Your task to perform on an android device: Show me popular games on the Play Store Image 0: 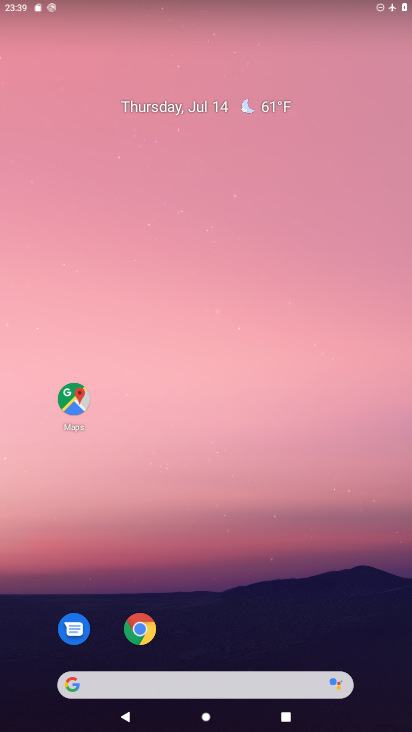
Step 0: drag from (271, 641) to (307, 108)
Your task to perform on an android device: Show me popular games on the Play Store Image 1: 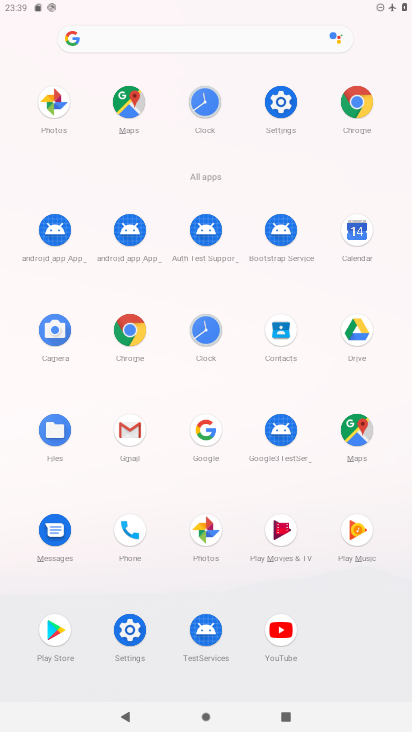
Step 1: click (49, 624)
Your task to perform on an android device: Show me popular games on the Play Store Image 2: 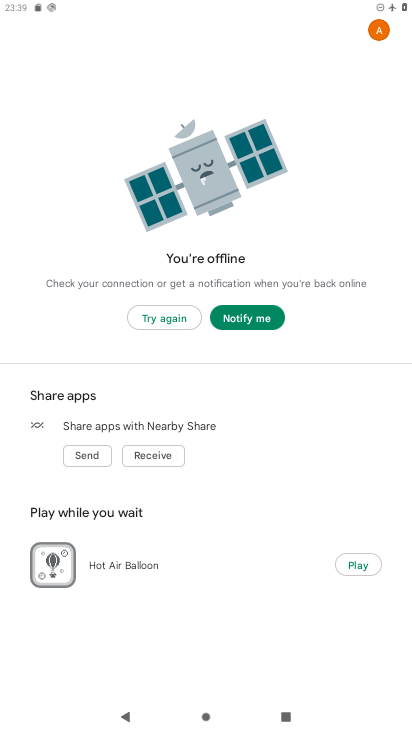
Step 2: drag from (314, 11) to (304, 582)
Your task to perform on an android device: Show me popular games on the Play Store Image 3: 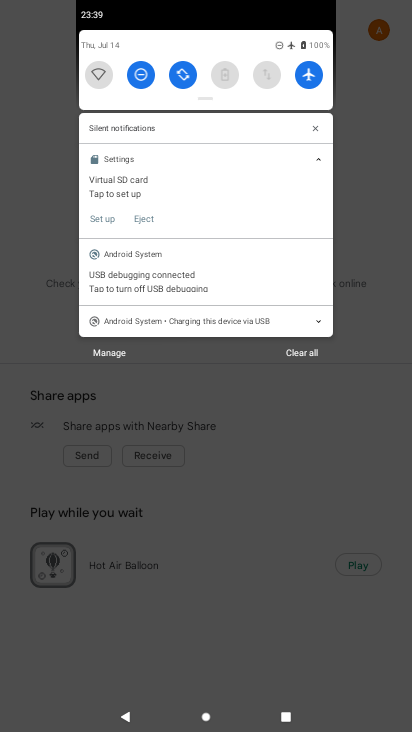
Step 3: click (310, 79)
Your task to perform on an android device: Show me popular games on the Play Store Image 4: 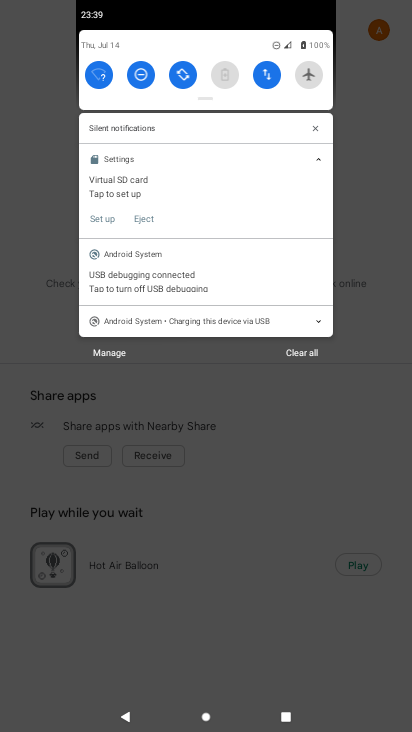
Step 4: task complete